Your task to perform on an android device: Open display settings Image 0: 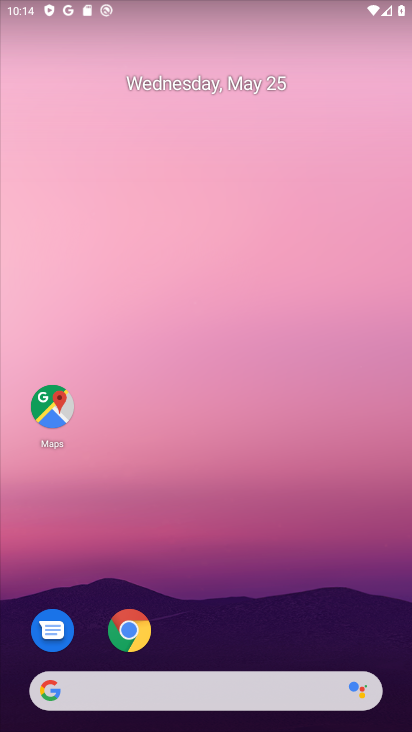
Step 0: drag from (256, 625) to (232, 54)
Your task to perform on an android device: Open display settings Image 1: 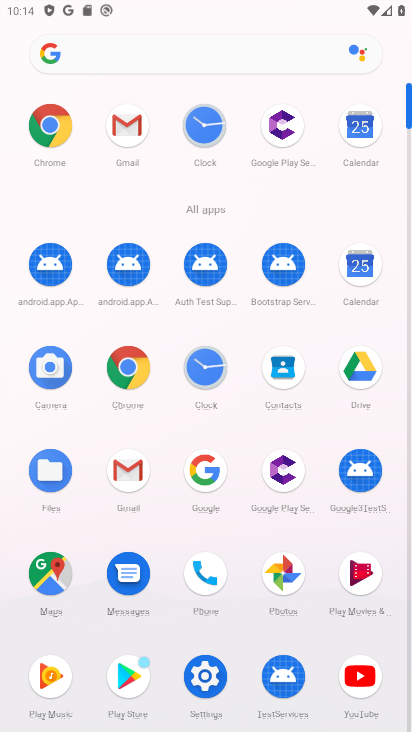
Step 1: click (217, 674)
Your task to perform on an android device: Open display settings Image 2: 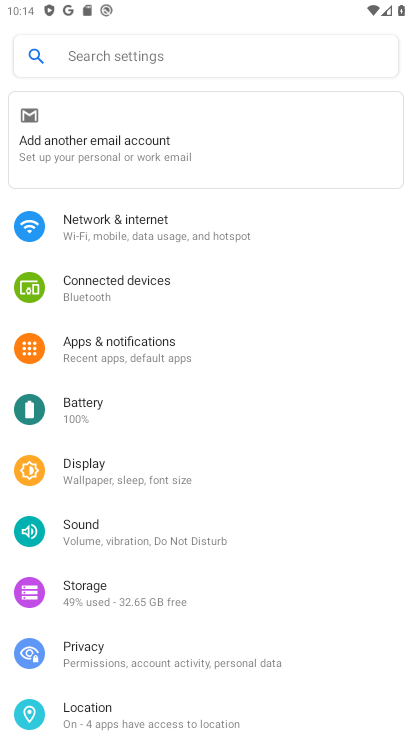
Step 2: click (178, 467)
Your task to perform on an android device: Open display settings Image 3: 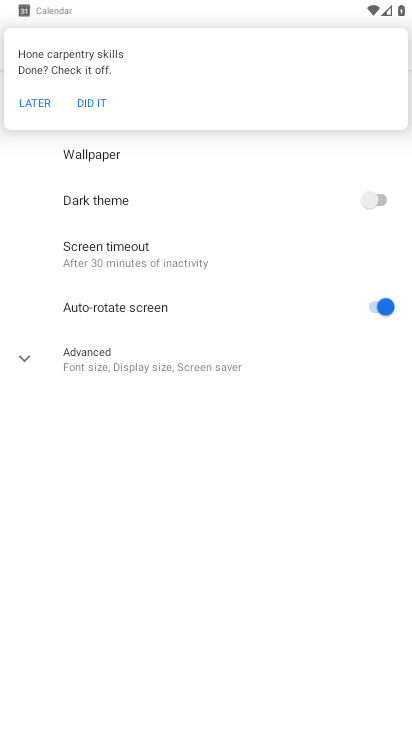
Step 3: task complete